Your task to perform on an android device: Open the Play Movies app and select the watchlist tab. Image 0: 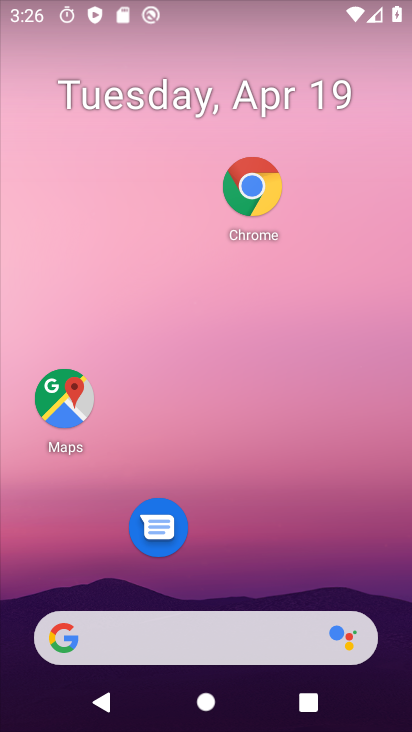
Step 0: drag from (237, 398) to (220, 92)
Your task to perform on an android device: Open the Play Movies app and select the watchlist tab. Image 1: 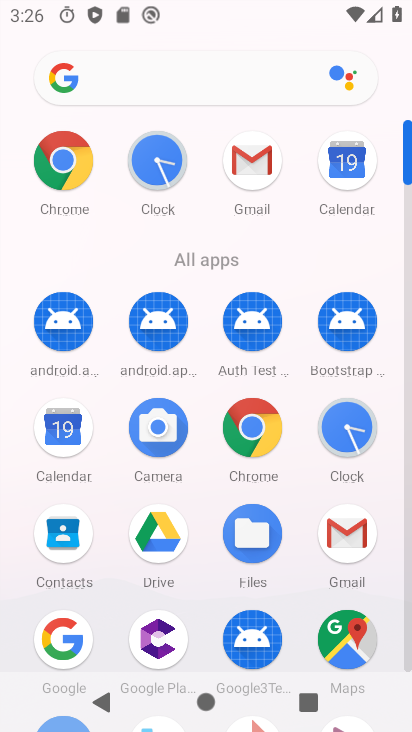
Step 1: drag from (275, 588) to (285, 133)
Your task to perform on an android device: Open the Play Movies app and select the watchlist tab. Image 2: 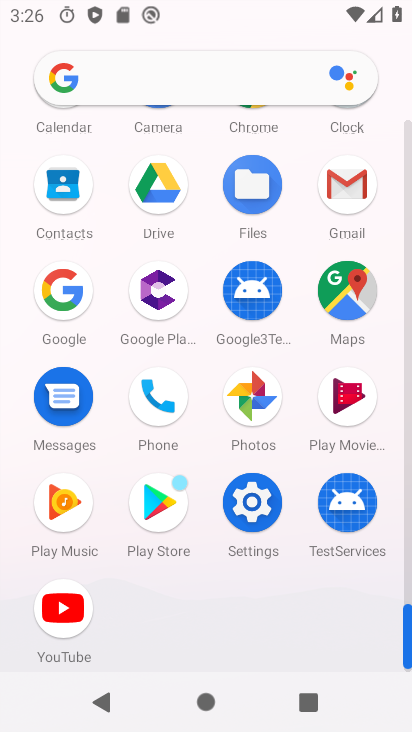
Step 2: click (342, 391)
Your task to perform on an android device: Open the Play Movies app and select the watchlist tab. Image 3: 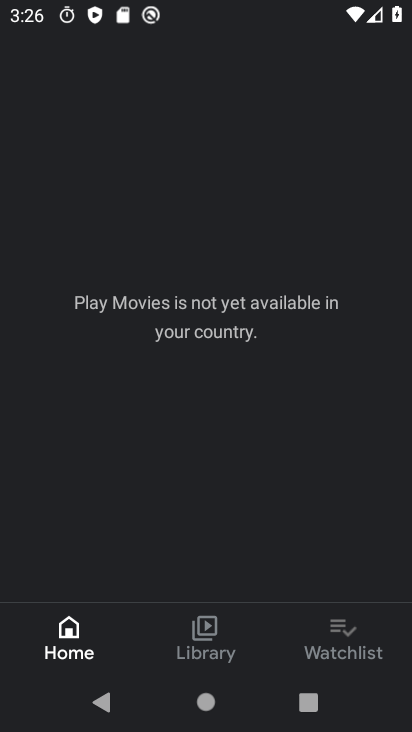
Step 3: click (341, 646)
Your task to perform on an android device: Open the Play Movies app and select the watchlist tab. Image 4: 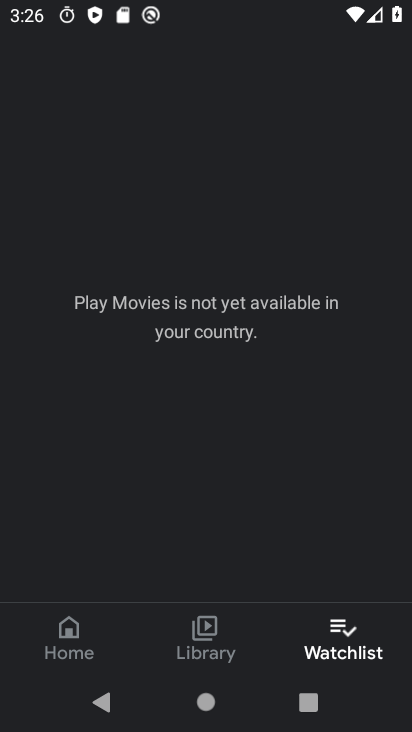
Step 4: task complete